Your task to perform on an android device: Open calendar and show me the first week of next month Image 0: 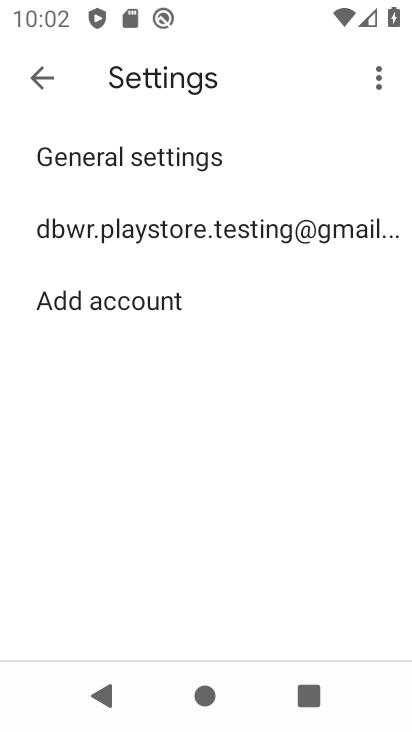
Step 0: press home button
Your task to perform on an android device: Open calendar and show me the first week of next month Image 1: 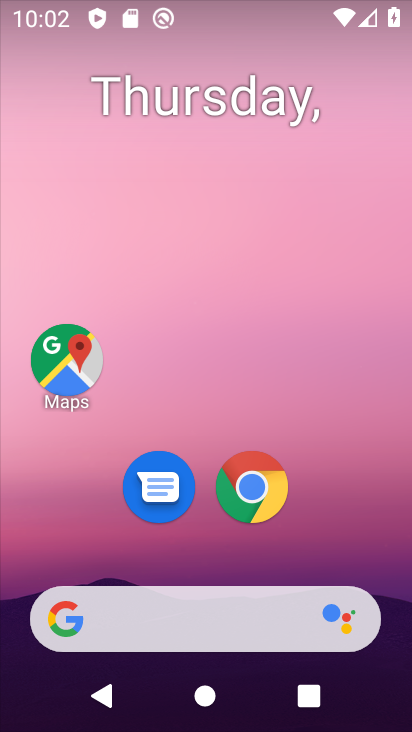
Step 1: drag from (330, 530) to (139, 145)
Your task to perform on an android device: Open calendar and show me the first week of next month Image 2: 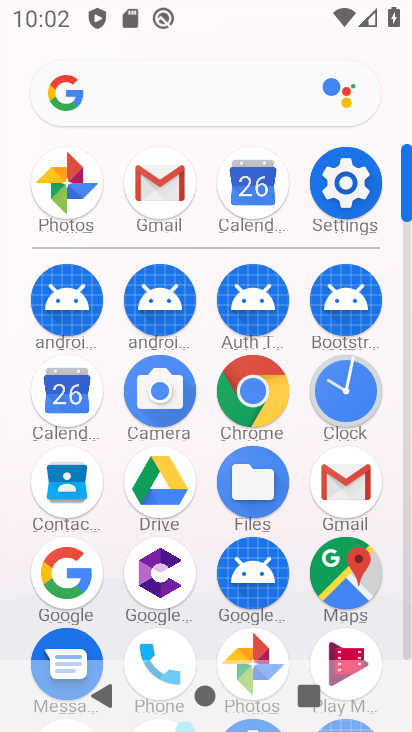
Step 2: click (75, 411)
Your task to perform on an android device: Open calendar and show me the first week of next month Image 3: 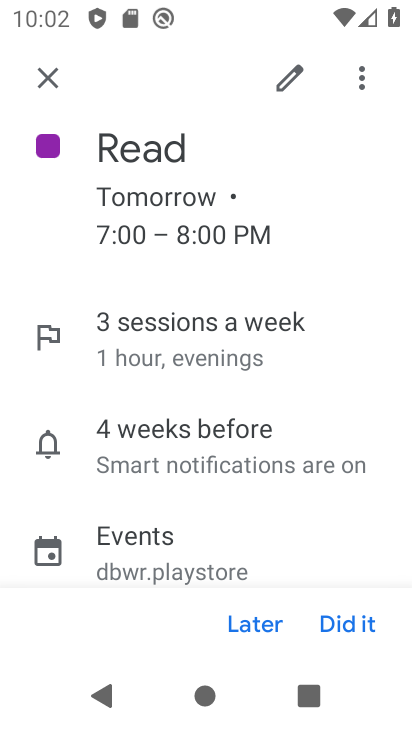
Step 3: click (52, 78)
Your task to perform on an android device: Open calendar and show me the first week of next month Image 4: 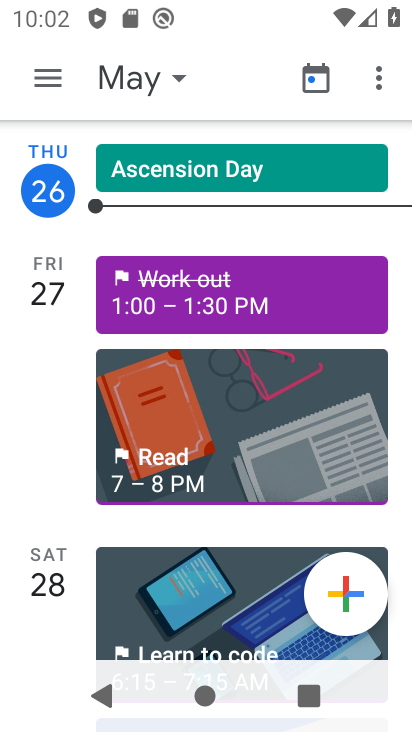
Step 4: click (136, 87)
Your task to perform on an android device: Open calendar and show me the first week of next month Image 5: 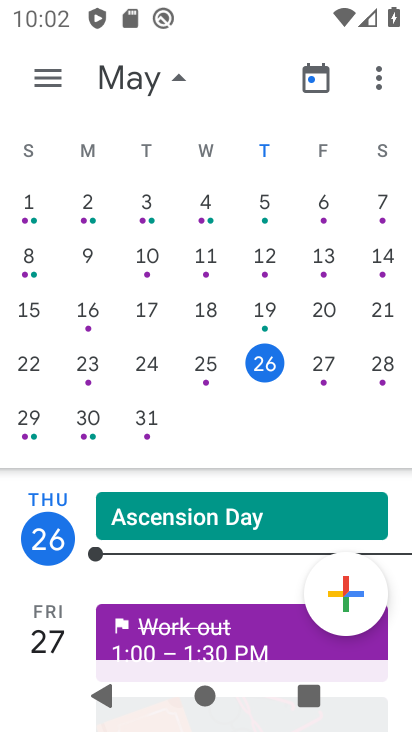
Step 5: drag from (280, 422) to (12, 311)
Your task to perform on an android device: Open calendar and show me the first week of next month Image 6: 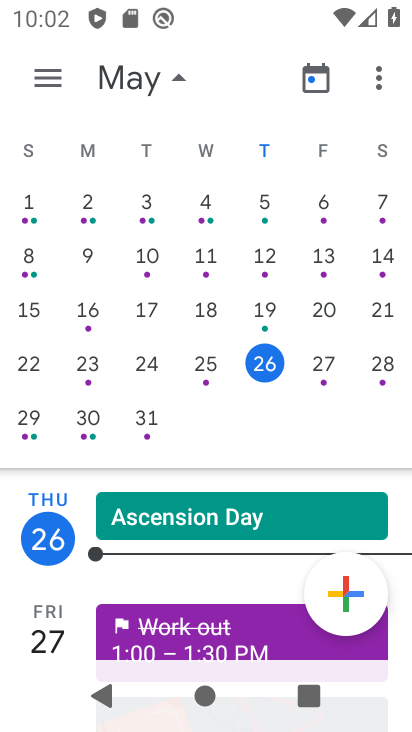
Step 6: drag from (325, 249) to (3, 262)
Your task to perform on an android device: Open calendar and show me the first week of next month Image 7: 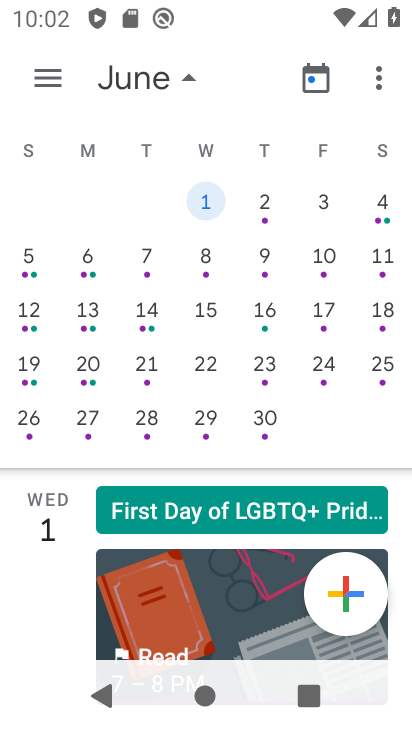
Step 7: click (206, 204)
Your task to perform on an android device: Open calendar and show me the first week of next month Image 8: 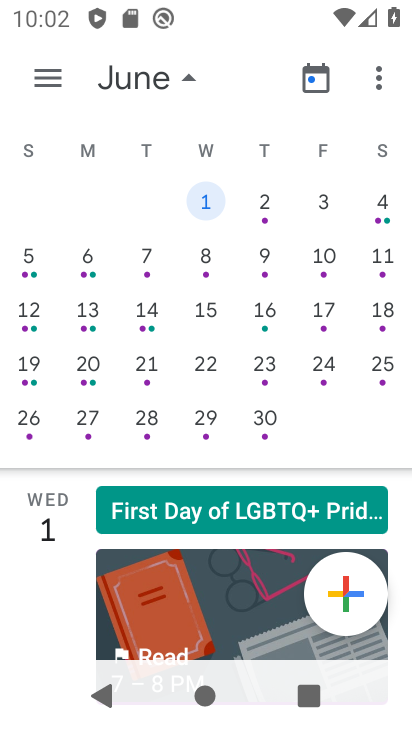
Step 8: click (48, 85)
Your task to perform on an android device: Open calendar and show me the first week of next month Image 9: 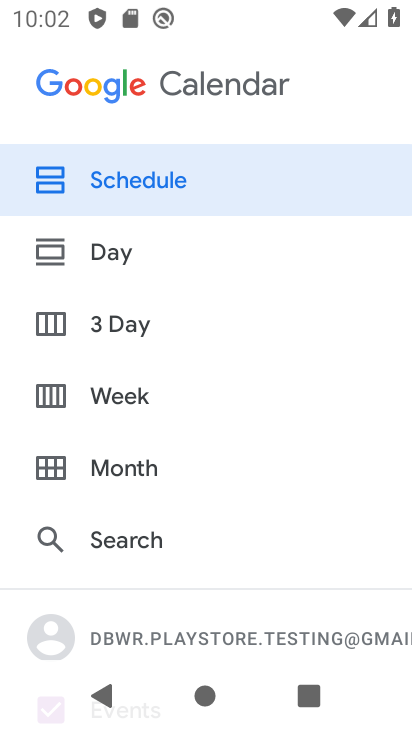
Step 9: click (76, 393)
Your task to perform on an android device: Open calendar and show me the first week of next month Image 10: 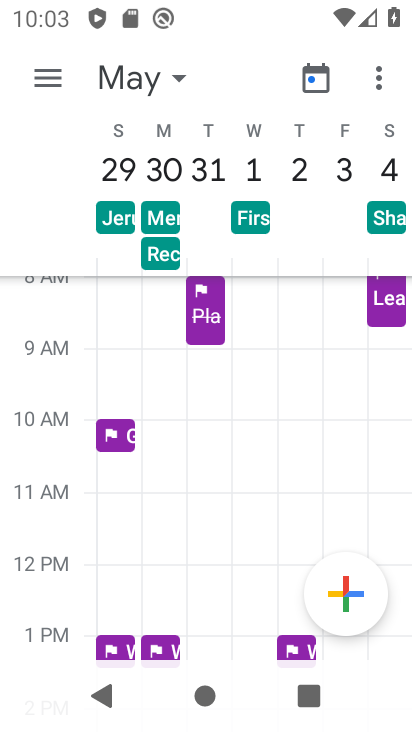
Step 10: task complete